Your task to perform on an android device: choose inbox layout in the gmail app Image 0: 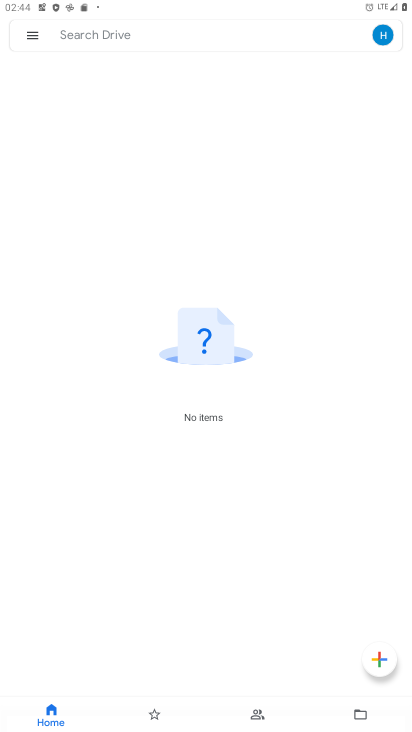
Step 0: press home button
Your task to perform on an android device: choose inbox layout in the gmail app Image 1: 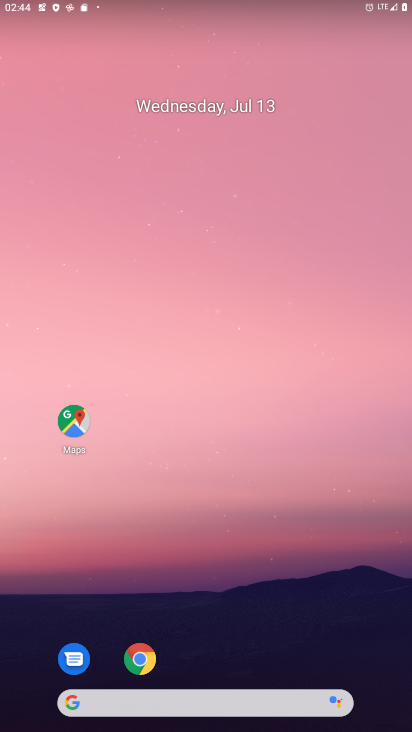
Step 1: drag from (223, 716) to (224, 178)
Your task to perform on an android device: choose inbox layout in the gmail app Image 2: 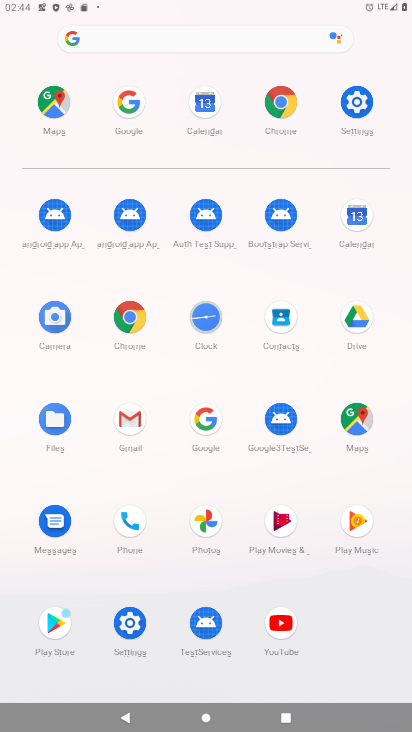
Step 2: click (129, 411)
Your task to perform on an android device: choose inbox layout in the gmail app Image 3: 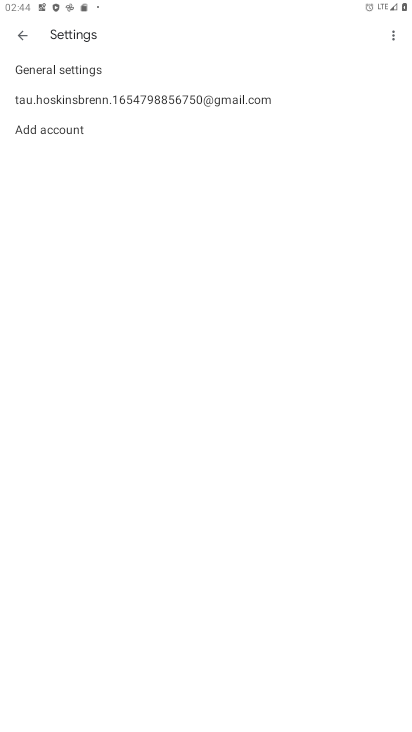
Step 3: click (132, 99)
Your task to perform on an android device: choose inbox layout in the gmail app Image 4: 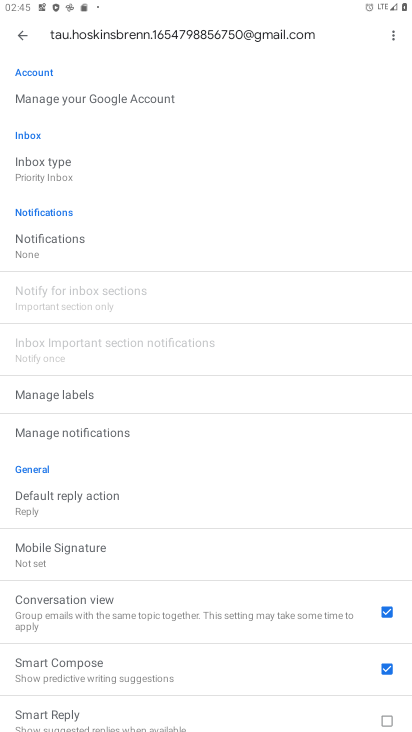
Step 4: click (54, 167)
Your task to perform on an android device: choose inbox layout in the gmail app Image 5: 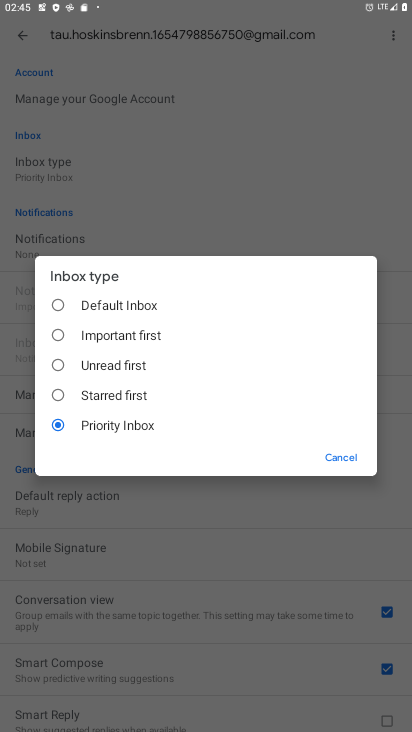
Step 5: click (56, 396)
Your task to perform on an android device: choose inbox layout in the gmail app Image 6: 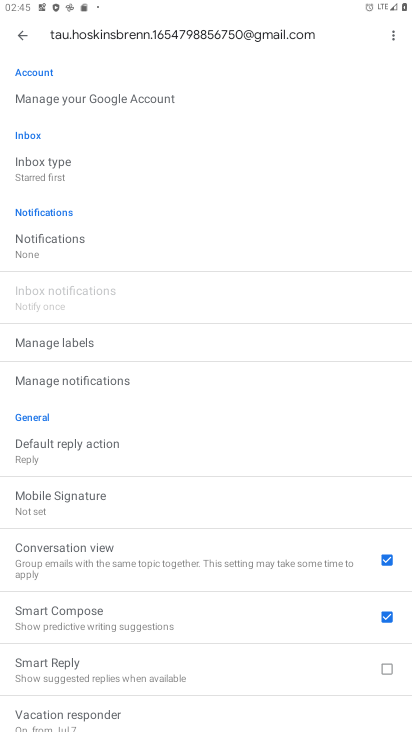
Step 6: task complete